Your task to perform on an android device: Open calendar and show me the second week of next month Image 0: 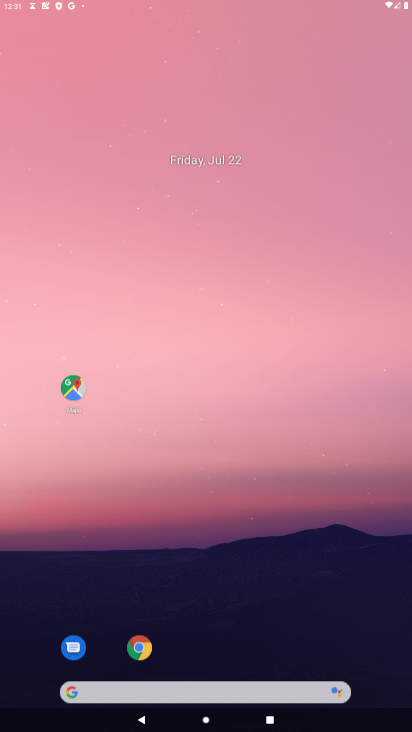
Step 0: press home button
Your task to perform on an android device: Open calendar and show me the second week of next month Image 1: 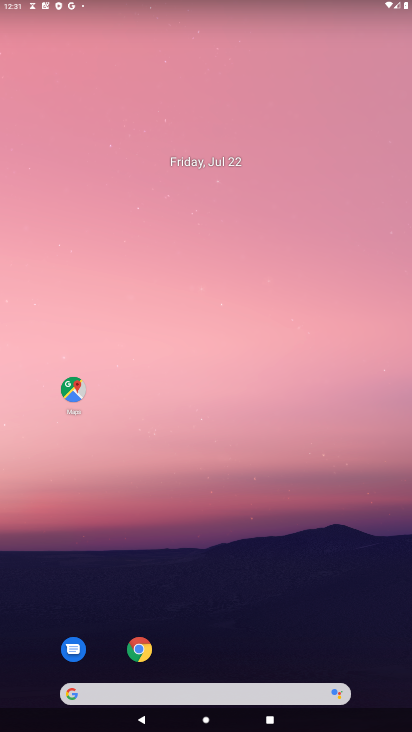
Step 1: click (313, 605)
Your task to perform on an android device: Open calendar and show me the second week of next month Image 2: 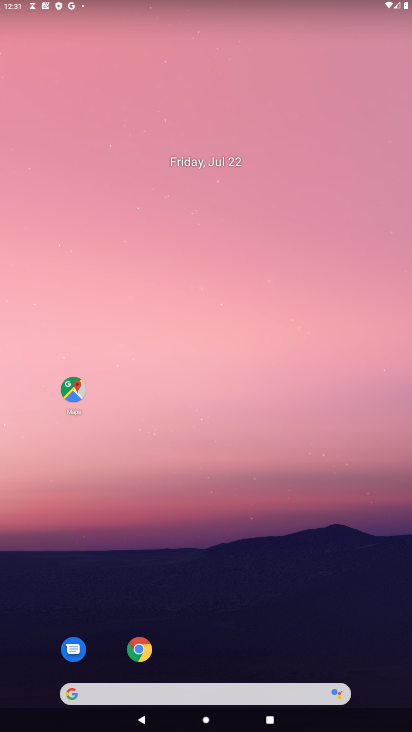
Step 2: drag from (300, 578) to (215, 240)
Your task to perform on an android device: Open calendar and show me the second week of next month Image 3: 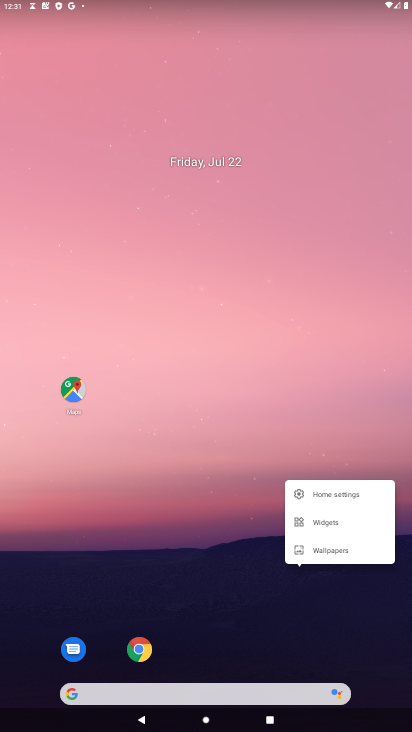
Step 3: click (247, 390)
Your task to perform on an android device: Open calendar and show me the second week of next month Image 4: 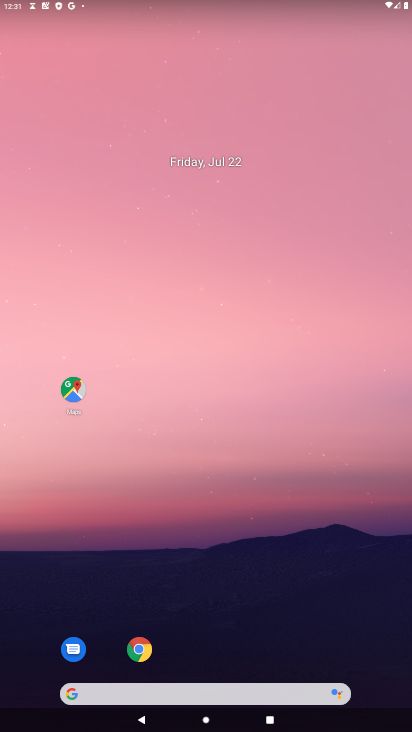
Step 4: drag from (307, 492) to (228, 16)
Your task to perform on an android device: Open calendar and show me the second week of next month Image 5: 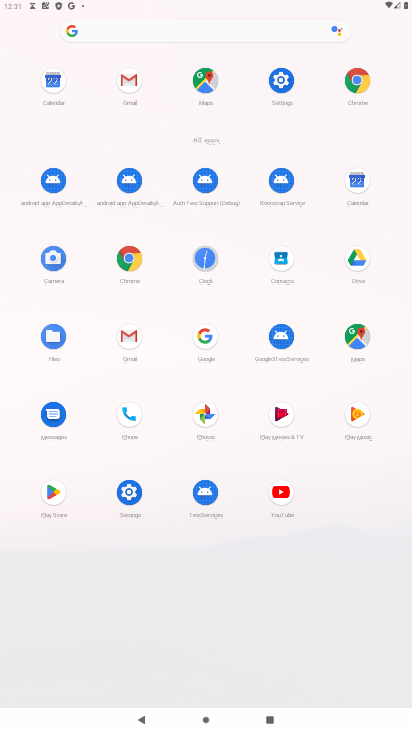
Step 5: click (360, 176)
Your task to perform on an android device: Open calendar and show me the second week of next month Image 6: 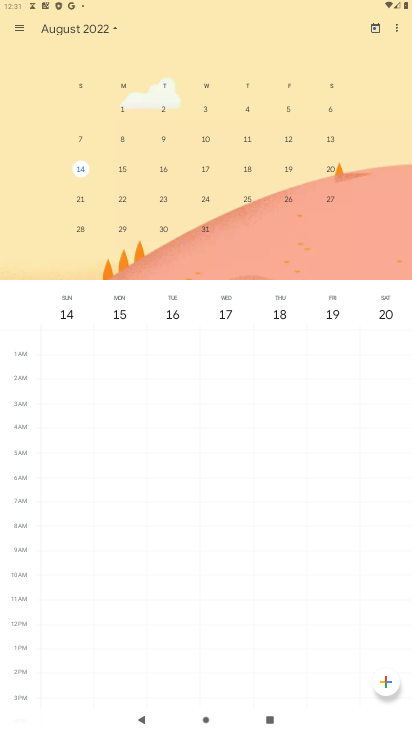
Step 6: click (85, 30)
Your task to perform on an android device: Open calendar and show me the second week of next month Image 7: 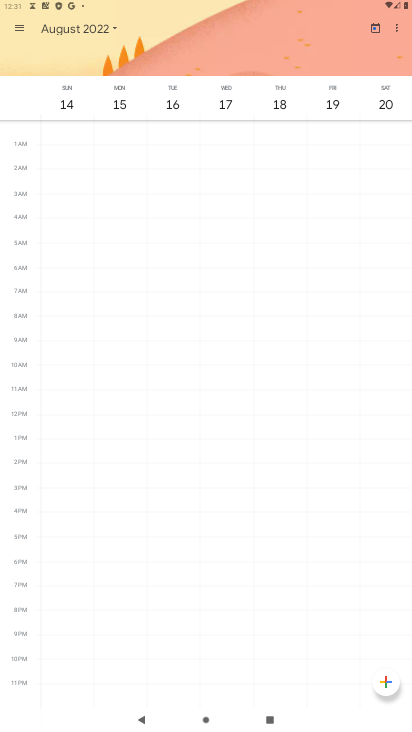
Step 7: click (89, 31)
Your task to perform on an android device: Open calendar and show me the second week of next month Image 8: 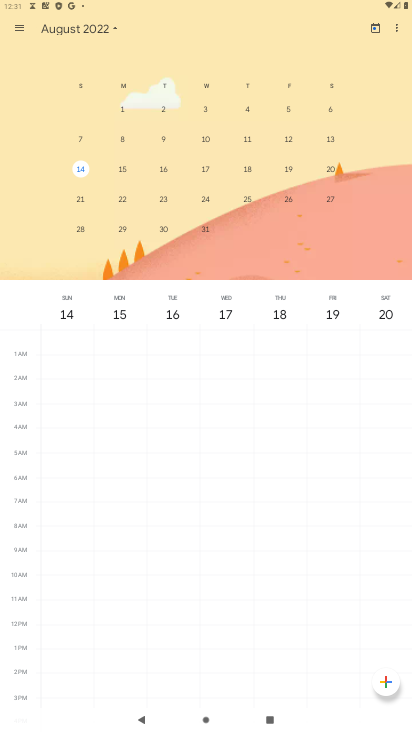
Step 8: click (121, 140)
Your task to perform on an android device: Open calendar and show me the second week of next month Image 9: 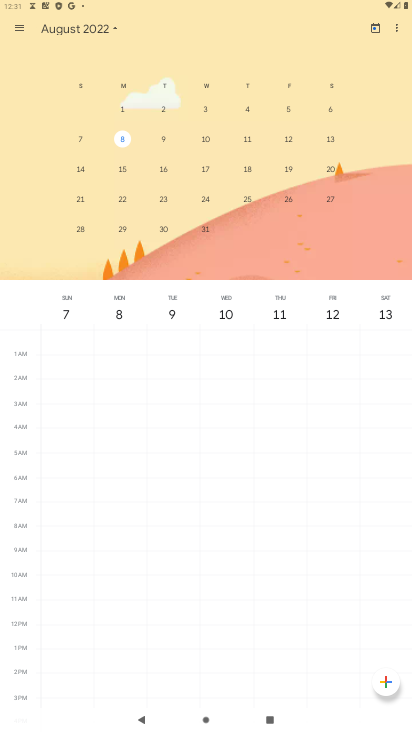
Step 9: task complete